Your task to perform on an android device: set the timer Image 0: 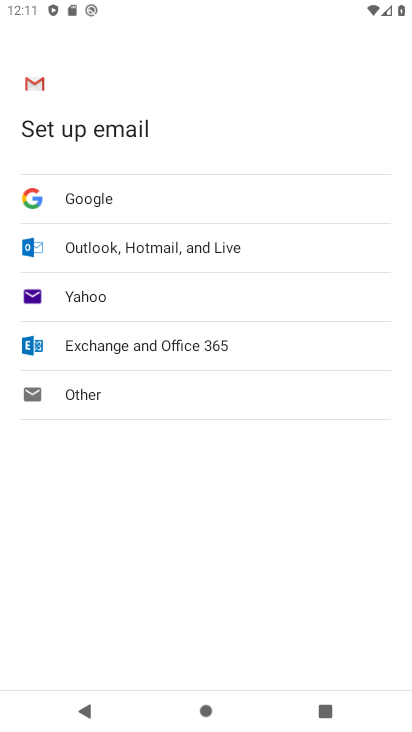
Step 0: press home button
Your task to perform on an android device: set the timer Image 1: 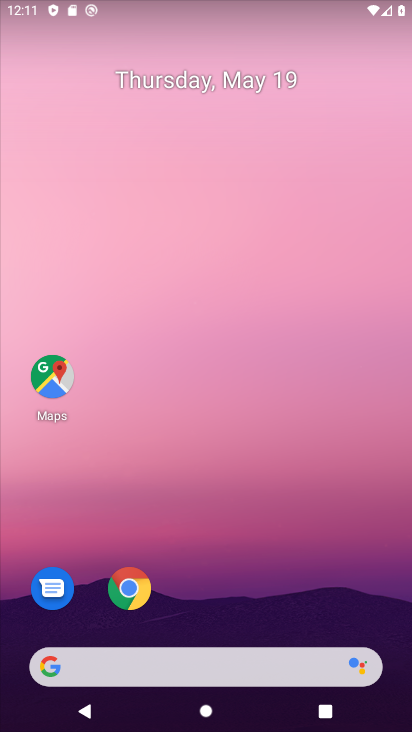
Step 1: drag from (241, 619) to (320, 20)
Your task to perform on an android device: set the timer Image 2: 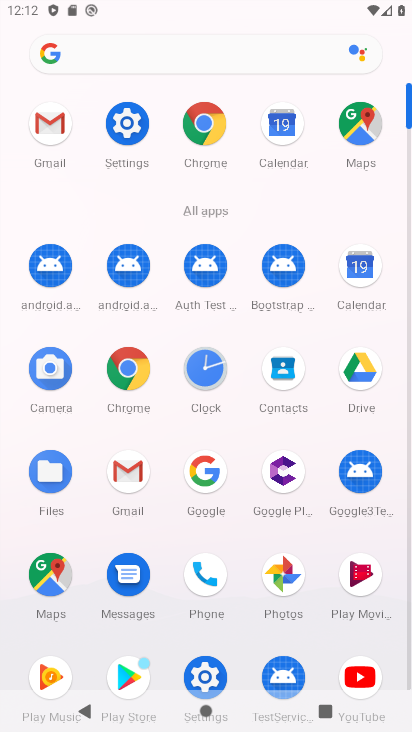
Step 2: click (203, 375)
Your task to perform on an android device: set the timer Image 3: 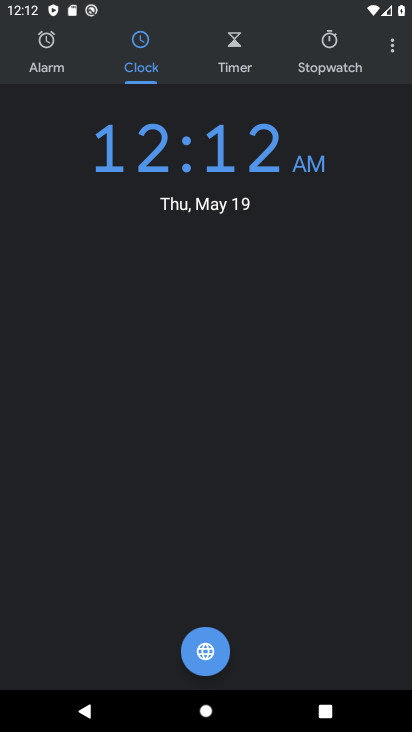
Step 3: click (224, 52)
Your task to perform on an android device: set the timer Image 4: 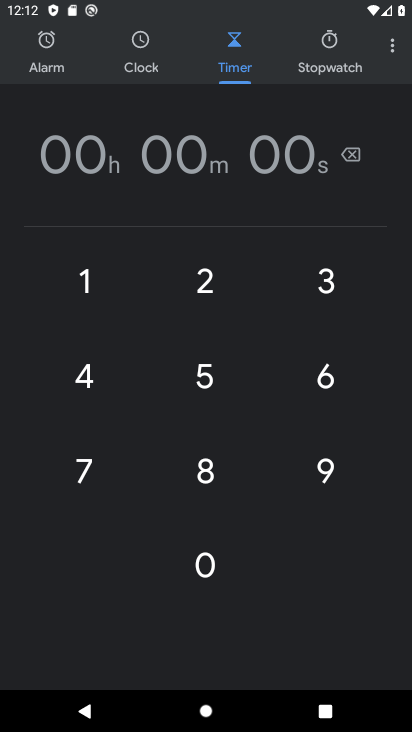
Step 4: type "100000"
Your task to perform on an android device: set the timer Image 5: 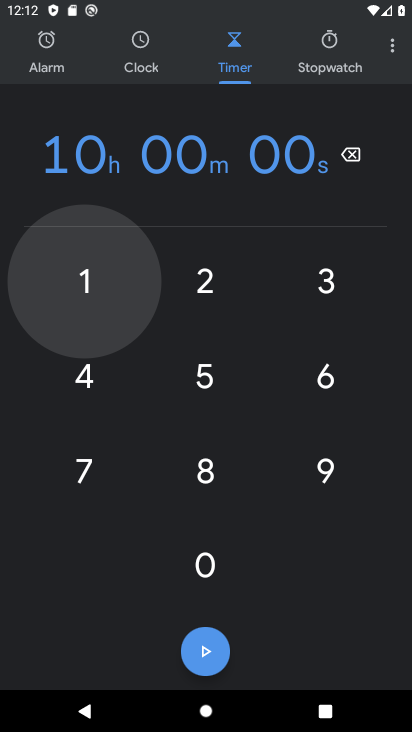
Step 5: click (213, 637)
Your task to perform on an android device: set the timer Image 6: 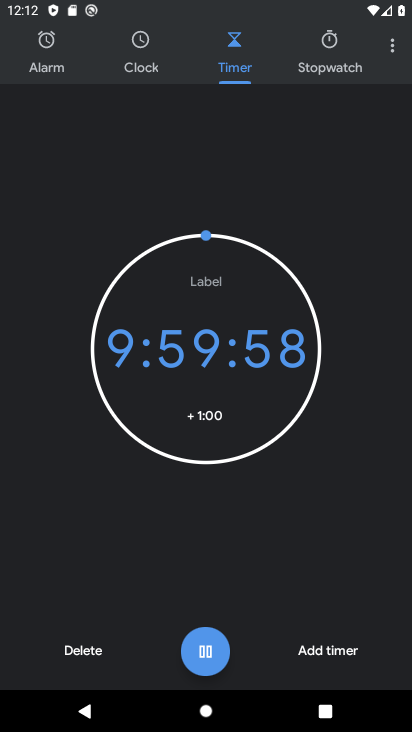
Step 6: task complete